Your task to perform on an android device: open device folders in google photos Image 0: 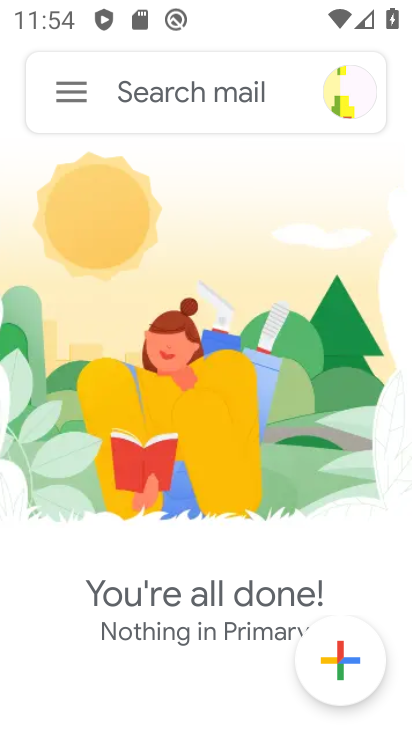
Step 0: press home button
Your task to perform on an android device: open device folders in google photos Image 1: 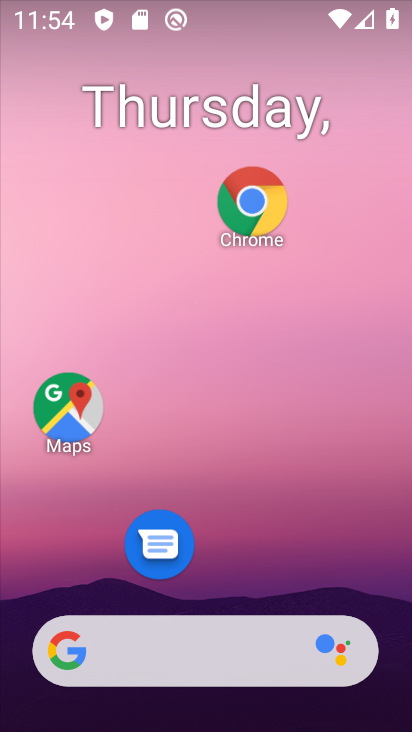
Step 1: drag from (217, 613) to (159, 30)
Your task to perform on an android device: open device folders in google photos Image 2: 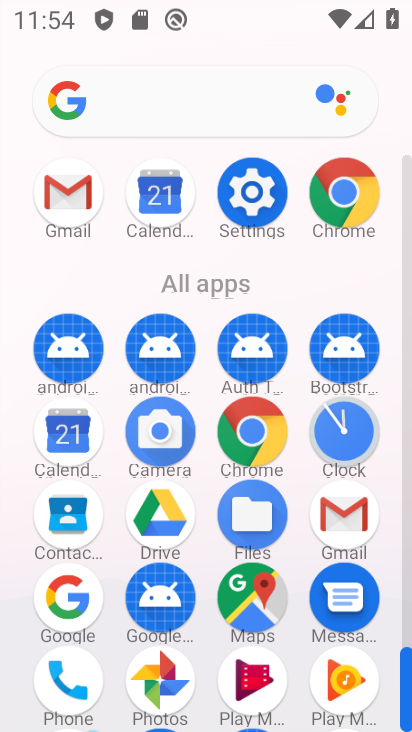
Step 2: click (147, 677)
Your task to perform on an android device: open device folders in google photos Image 3: 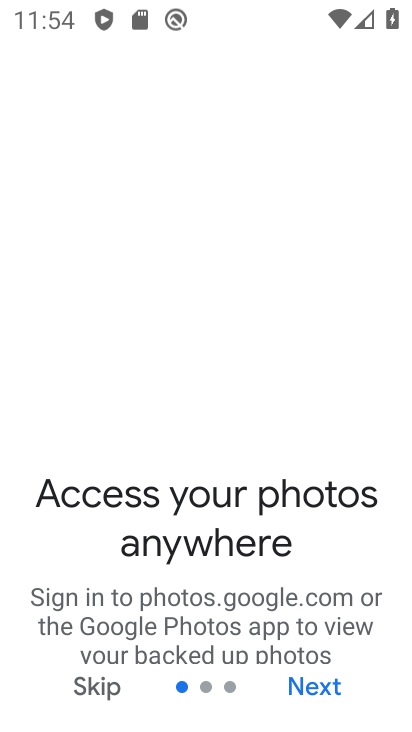
Step 3: click (116, 687)
Your task to perform on an android device: open device folders in google photos Image 4: 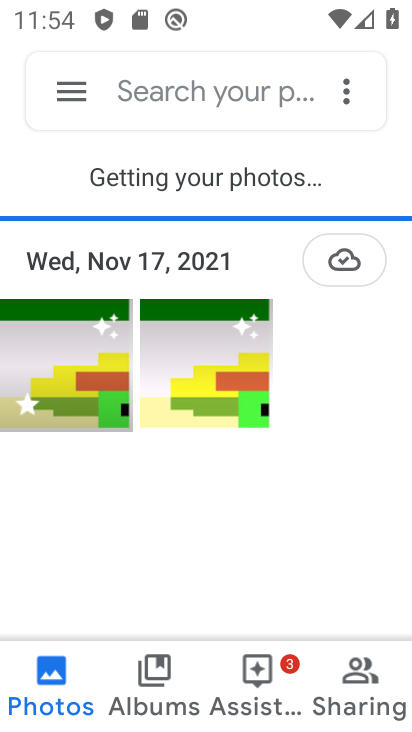
Step 4: click (67, 104)
Your task to perform on an android device: open device folders in google photos Image 5: 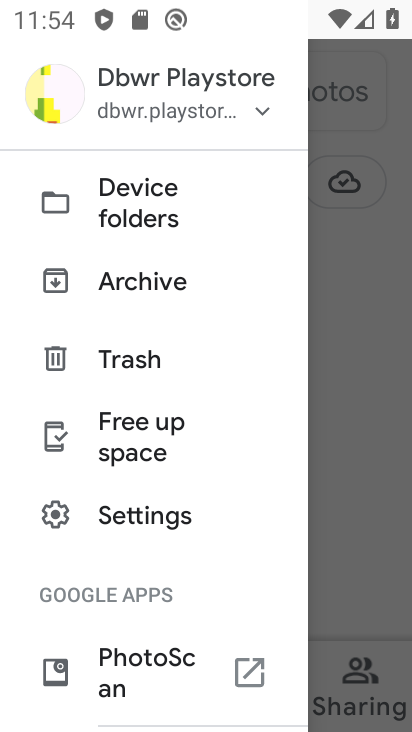
Step 5: click (113, 206)
Your task to perform on an android device: open device folders in google photos Image 6: 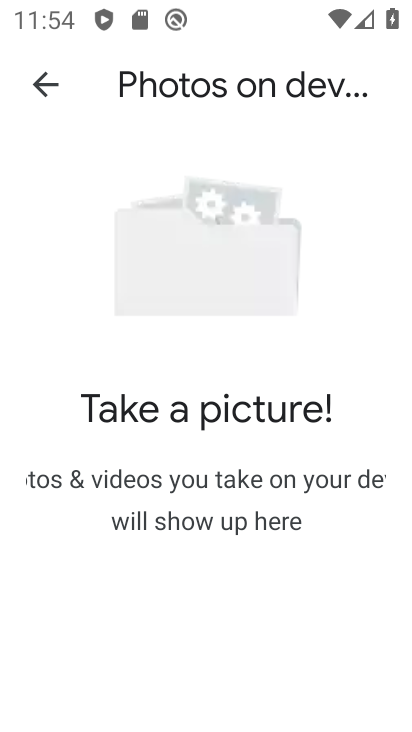
Step 6: task complete